Your task to perform on an android device: set the stopwatch Image 0: 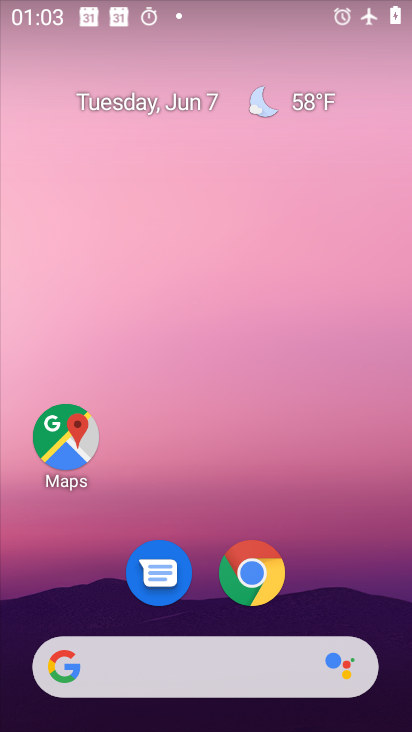
Step 0: drag from (332, 605) to (407, 49)
Your task to perform on an android device: set the stopwatch Image 1: 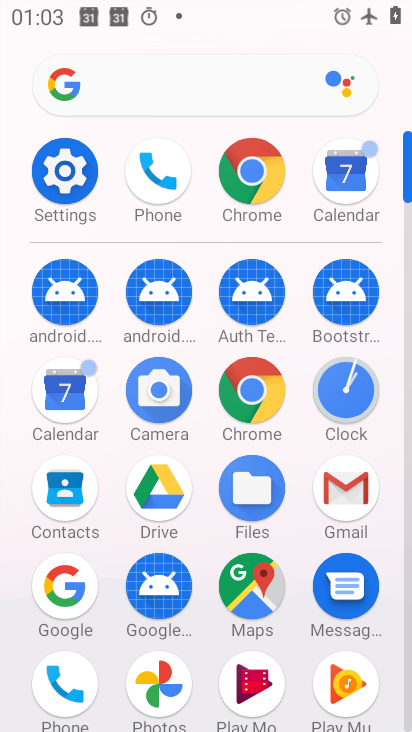
Step 1: click (351, 389)
Your task to perform on an android device: set the stopwatch Image 2: 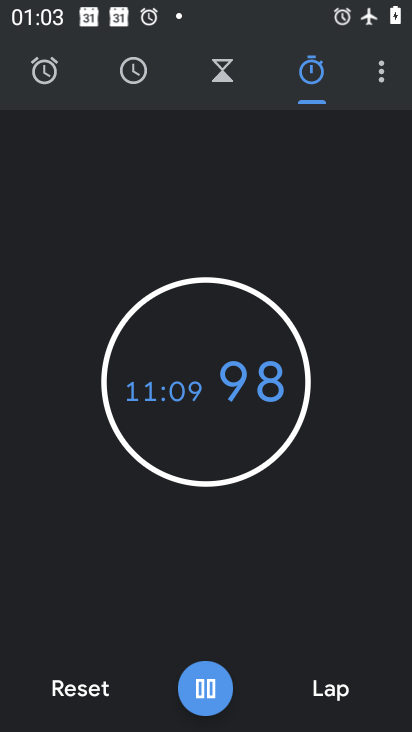
Step 2: task complete